Your task to perform on an android device: turn on javascript in the chrome app Image 0: 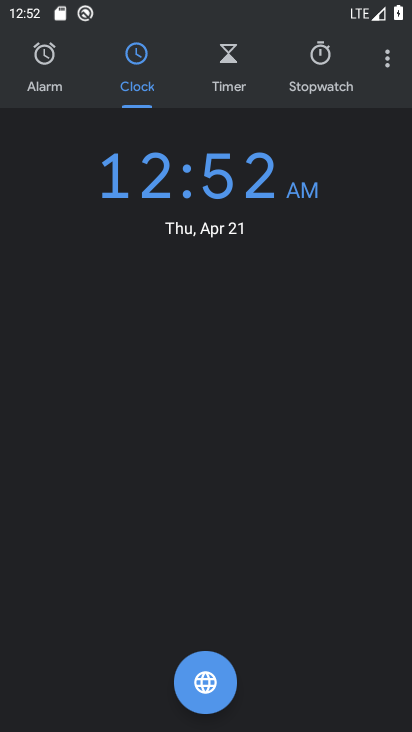
Step 0: press home button
Your task to perform on an android device: turn on javascript in the chrome app Image 1: 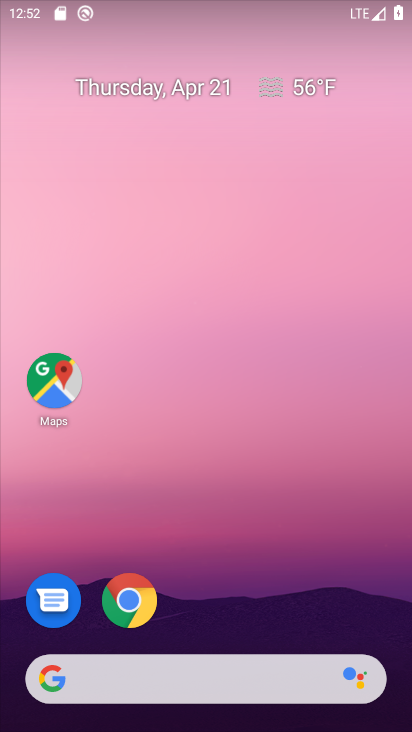
Step 1: click (128, 595)
Your task to perform on an android device: turn on javascript in the chrome app Image 2: 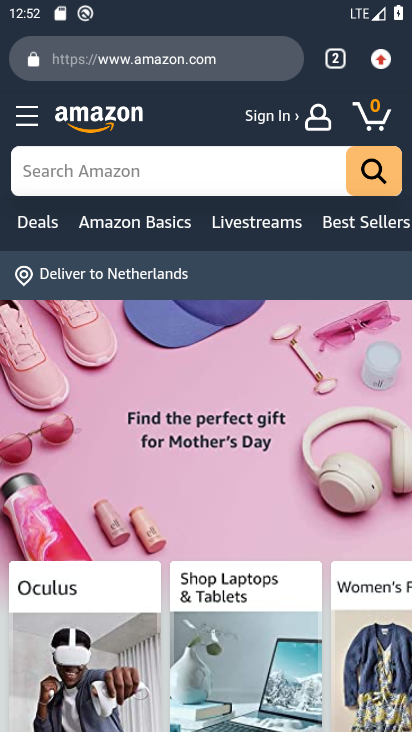
Step 2: click (384, 61)
Your task to perform on an android device: turn on javascript in the chrome app Image 3: 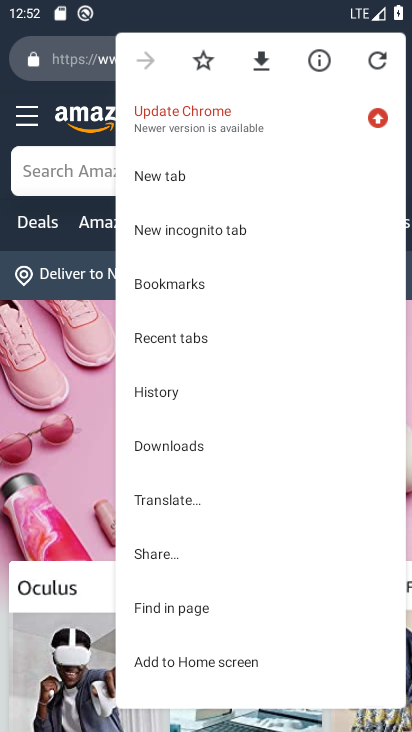
Step 3: drag from (205, 540) to (241, 225)
Your task to perform on an android device: turn on javascript in the chrome app Image 4: 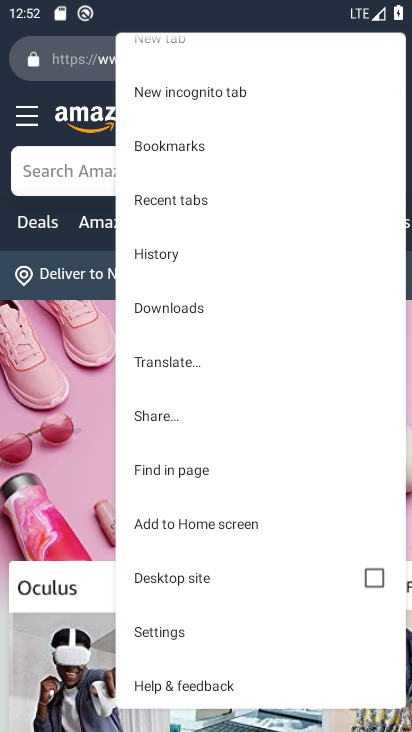
Step 4: click (181, 628)
Your task to perform on an android device: turn on javascript in the chrome app Image 5: 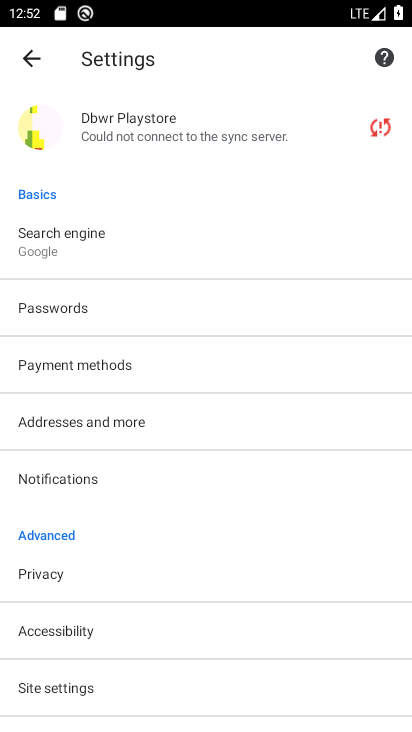
Step 5: click (175, 681)
Your task to perform on an android device: turn on javascript in the chrome app Image 6: 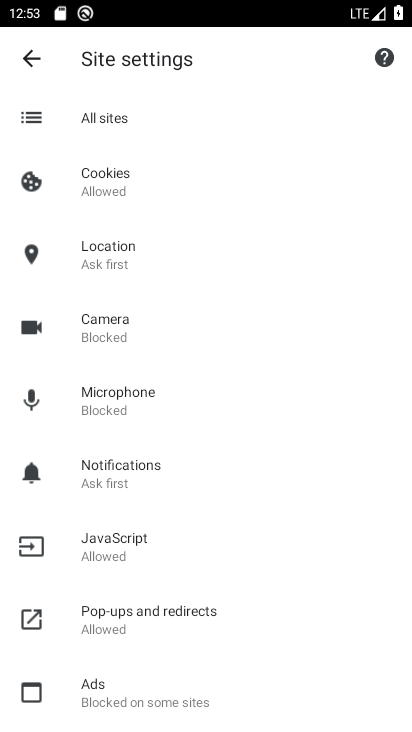
Step 6: click (180, 548)
Your task to perform on an android device: turn on javascript in the chrome app Image 7: 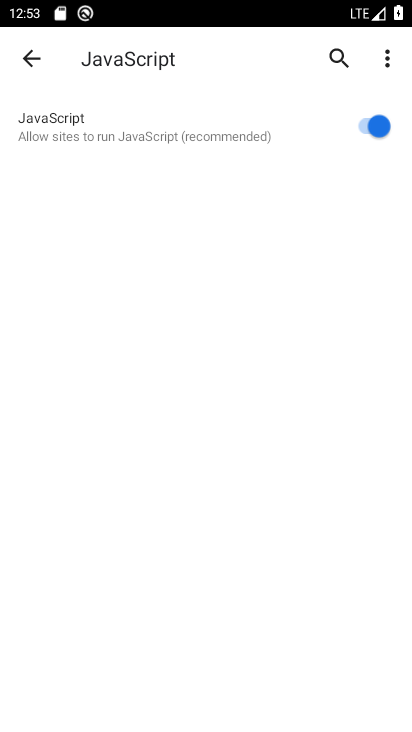
Step 7: task complete